Your task to perform on an android device: turn on javascript in the chrome app Image 0: 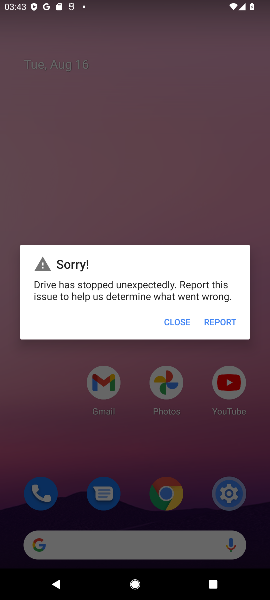
Step 0: press home button
Your task to perform on an android device: turn on javascript in the chrome app Image 1: 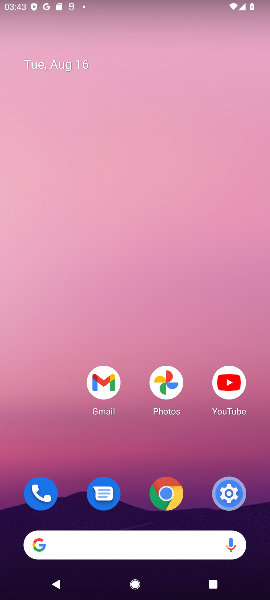
Step 1: drag from (68, 460) to (63, 98)
Your task to perform on an android device: turn on javascript in the chrome app Image 2: 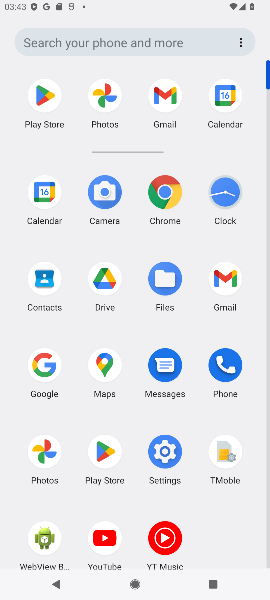
Step 2: click (167, 193)
Your task to perform on an android device: turn on javascript in the chrome app Image 3: 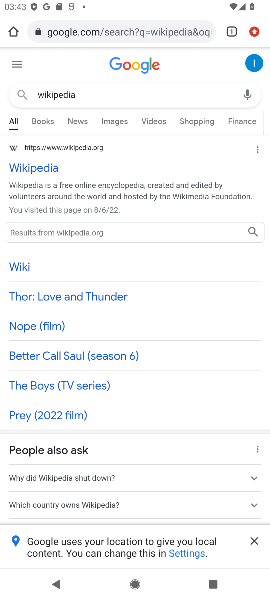
Step 3: click (254, 27)
Your task to perform on an android device: turn on javascript in the chrome app Image 4: 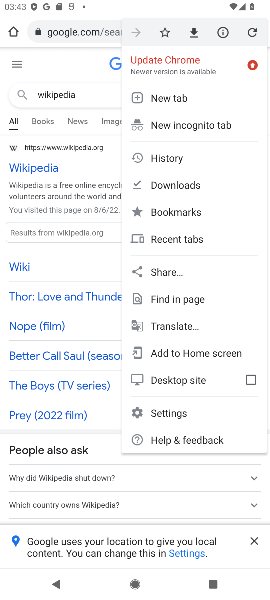
Step 4: click (194, 415)
Your task to perform on an android device: turn on javascript in the chrome app Image 5: 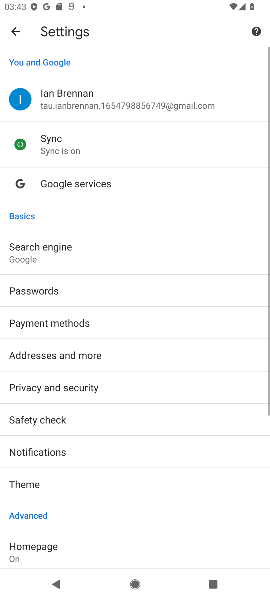
Step 5: drag from (187, 441) to (190, 370)
Your task to perform on an android device: turn on javascript in the chrome app Image 6: 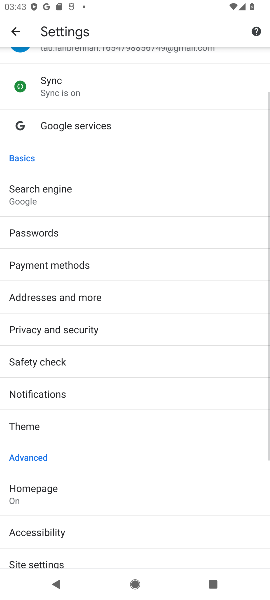
Step 6: drag from (193, 440) to (199, 373)
Your task to perform on an android device: turn on javascript in the chrome app Image 7: 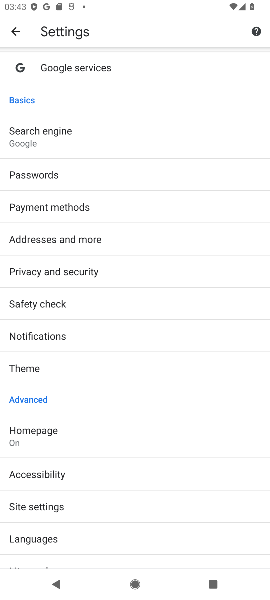
Step 7: drag from (201, 474) to (197, 390)
Your task to perform on an android device: turn on javascript in the chrome app Image 8: 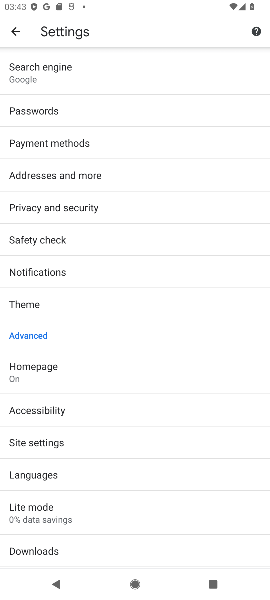
Step 8: drag from (195, 452) to (193, 330)
Your task to perform on an android device: turn on javascript in the chrome app Image 9: 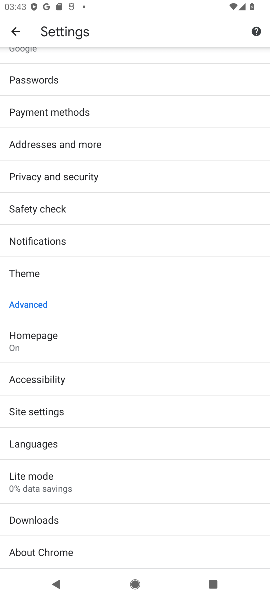
Step 9: click (172, 415)
Your task to perform on an android device: turn on javascript in the chrome app Image 10: 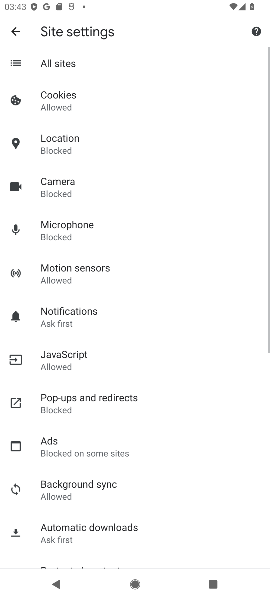
Step 10: drag from (190, 448) to (192, 310)
Your task to perform on an android device: turn on javascript in the chrome app Image 11: 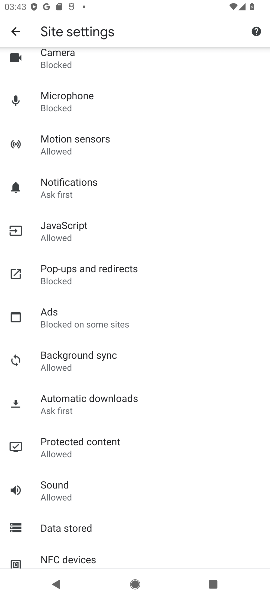
Step 11: drag from (203, 472) to (201, 294)
Your task to perform on an android device: turn on javascript in the chrome app Image 12: 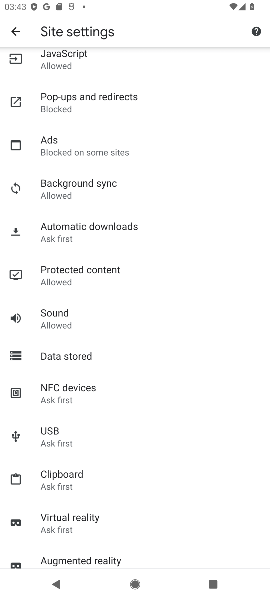
Step 12: drag from (208, 402) to (202, 263)
Your task to perform on an android device: turn on javascript in the chrome app Image 13: 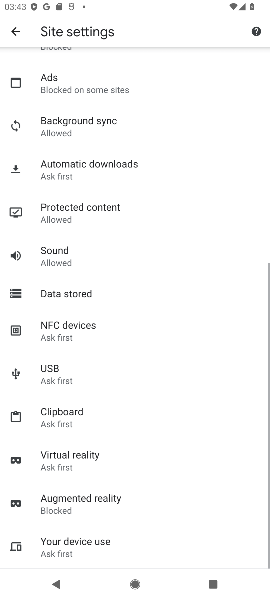
Step 13: drag from (206, 179) to (210, 335)
Your task to perform on an android device: turn on javascript in the chrome app Image 14: 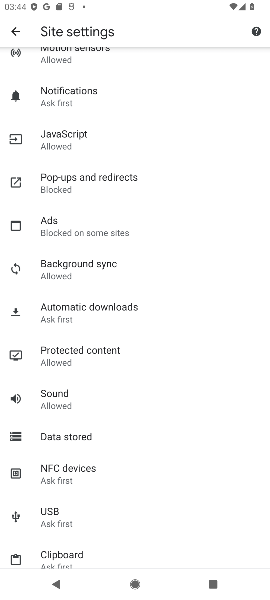
Step 14: drag from (205, 158) to (202, 328)
Your task to perform on an android device: turn on javascript in the chrome app Image 15: 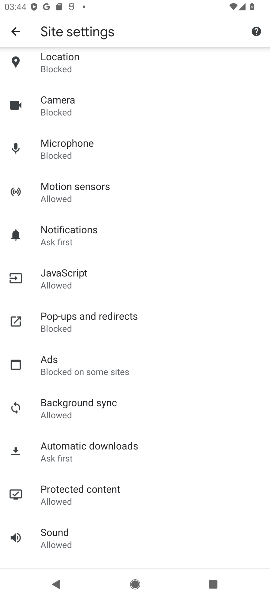
Step 15: drag from (195, 107) to (198, 358)
Your task to perform on an android device: turn on javascript in the chrome app Image 16: 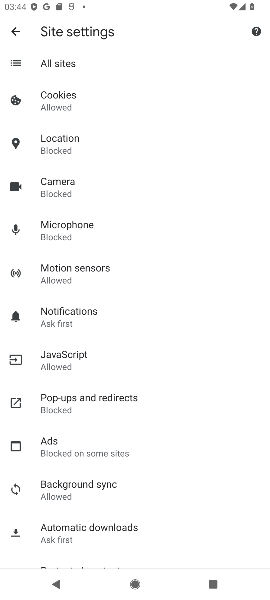
Step 16: click (95, 361)
Your task to perform on an android device: turn on javascript in the chrome app Image 17: 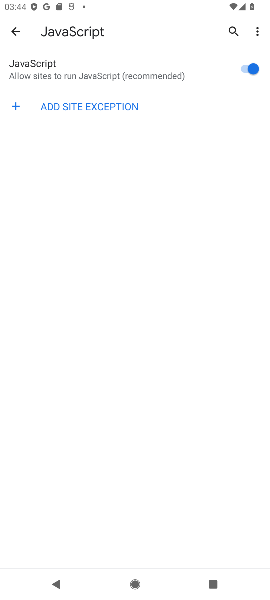
Step 17: task complete